Your task to perform on an android device: Open accessibility settings Image 0: 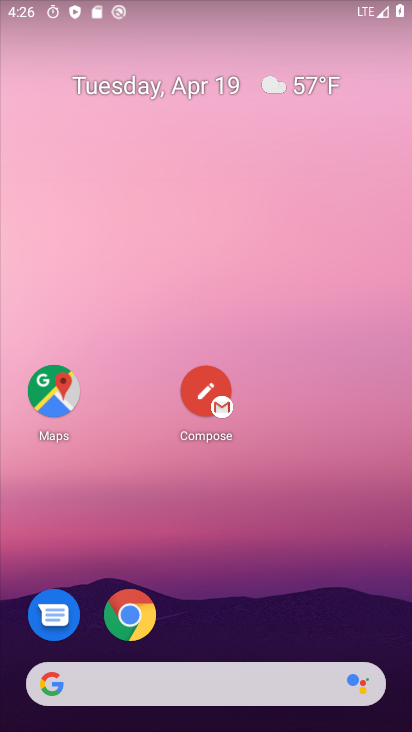
Step 0: drag from (323, 661) to (319, 19)
Your task to perform on an android device: Open accessibility settings Image 1: 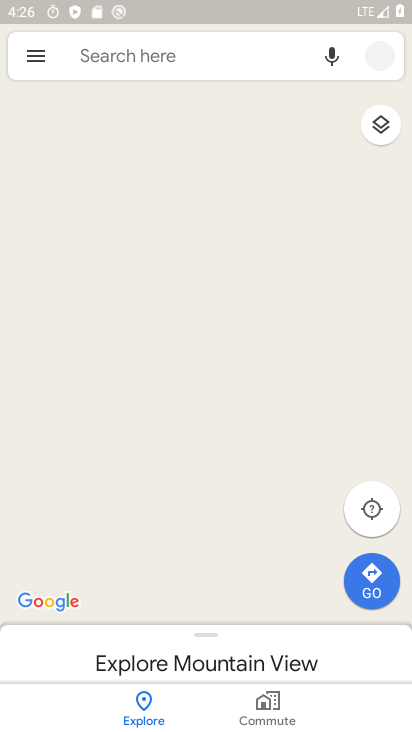
Step 1: press home button
Your task to perform on an android device: Open accessibility settings Image 2: 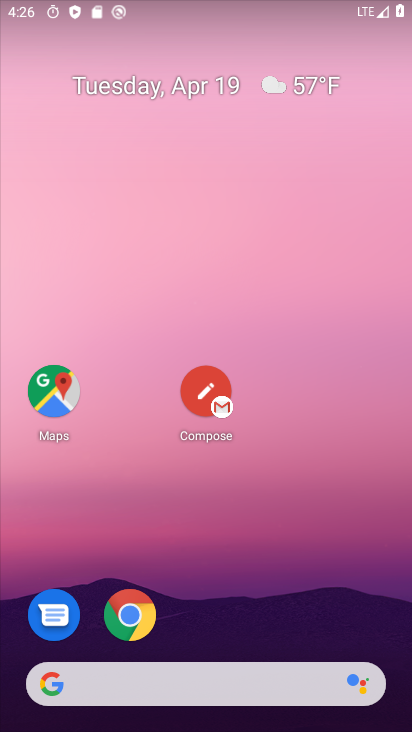
Step 2: drag from (295, 634) to (322, 4)
Your task to perform on an android device: Open accessibility settings Image 3: 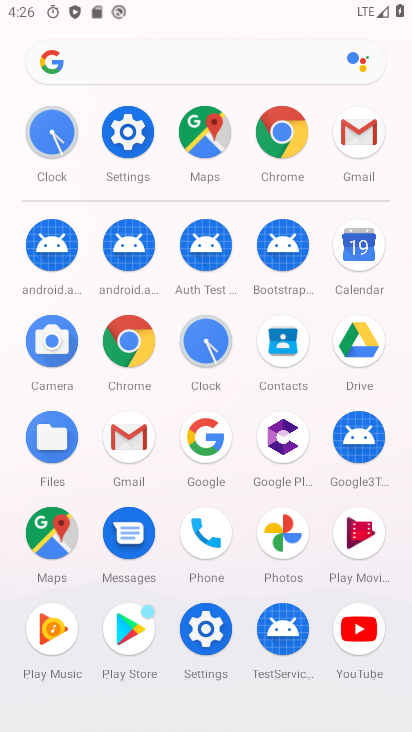
Step 3: click (210, 639)
Your task to perform on an android device: Open accessibility settings Image 4: 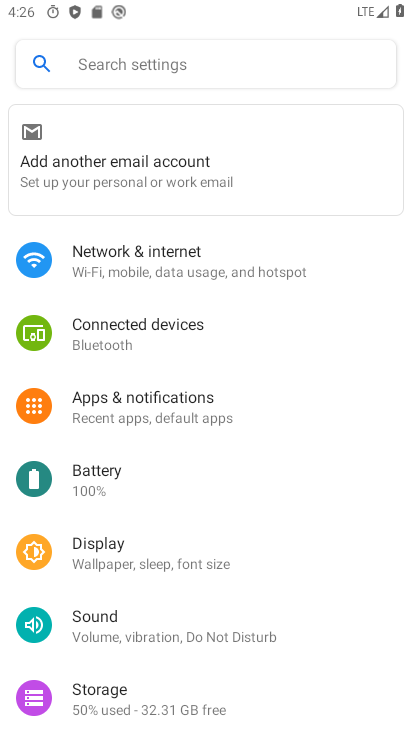
Step 4: drag from (220, 675) to (228, 244)
Your task to perform on an android device: Open accessibility settings Image 5: 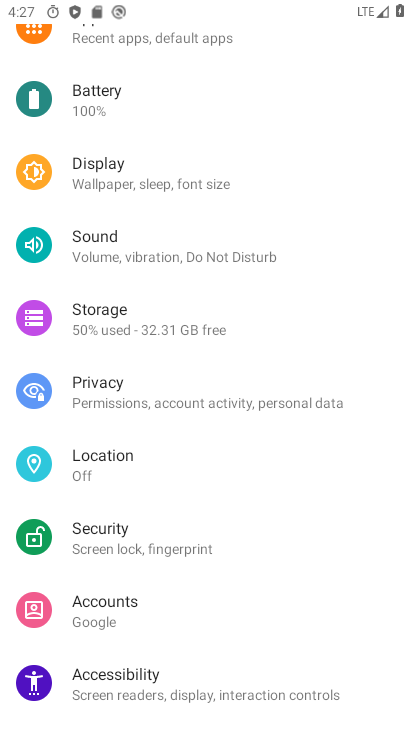
Step 5: click (222, 688)
Your task to perform on an android device: Open accessibility settings Image 6: 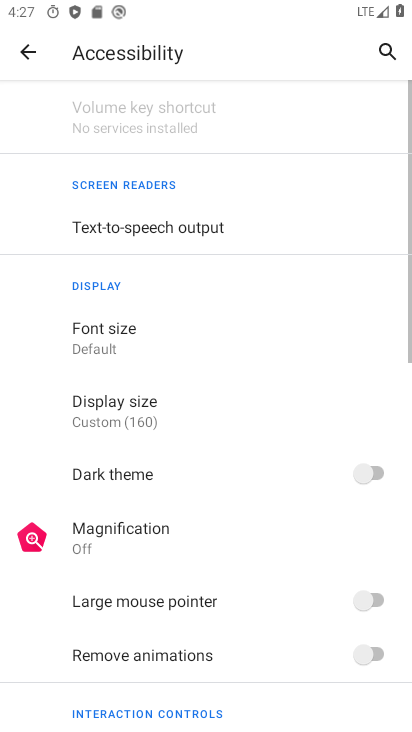
Step 6: task complete